Your task to perform on an android device: Open Yahoo.com Image 0: 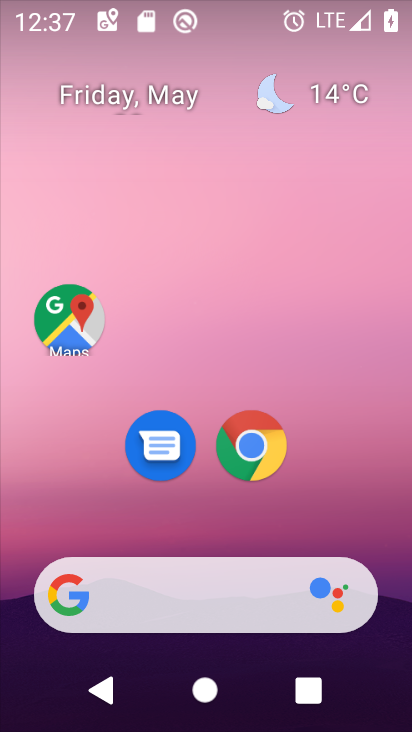
Step 0: click (251, 449)
Your task to perform on an android device: Open Yahoo.com Image 1: 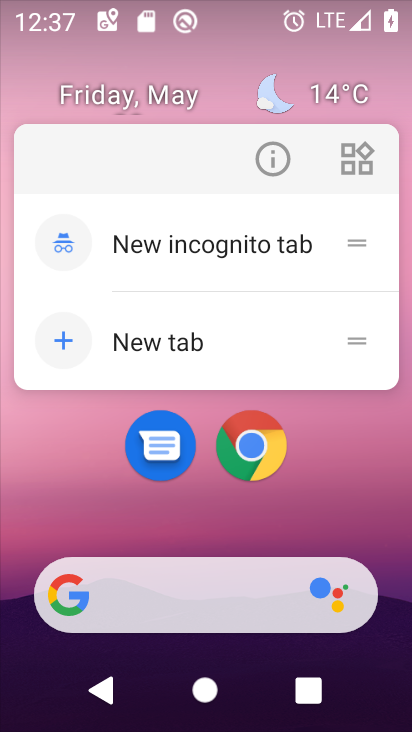
Step 1: click (256, 430)
Your task to perform on an android device: Open Yahoo.com Image 2: 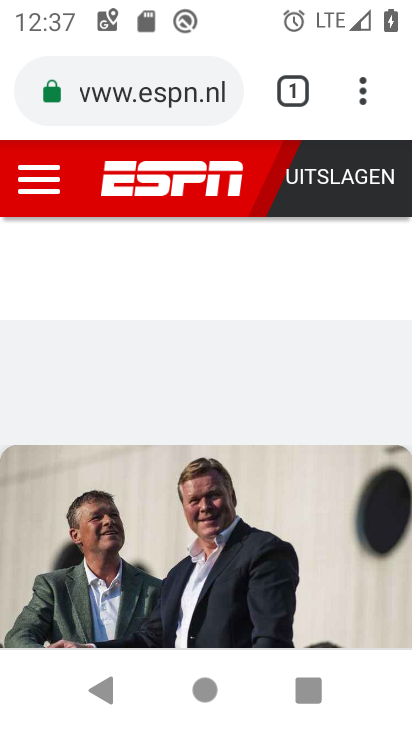
Step 2: click (295, 76)
Your task to perform on an android device: Open Yahoo.com Image 3: 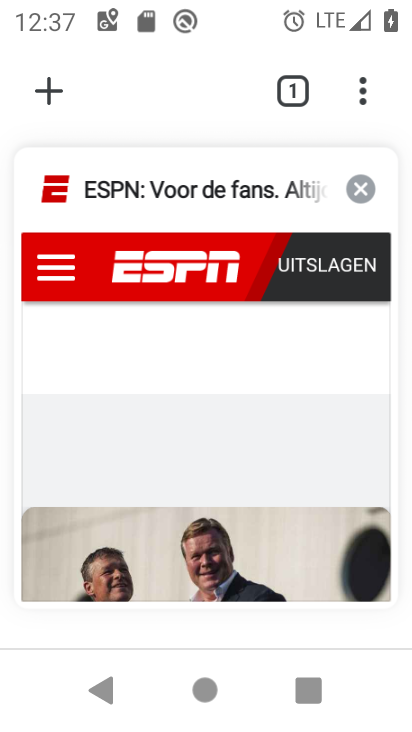
Step 3: click (360, 192)
Your task to perform on an android device: Open Yahoo.com Image 4: 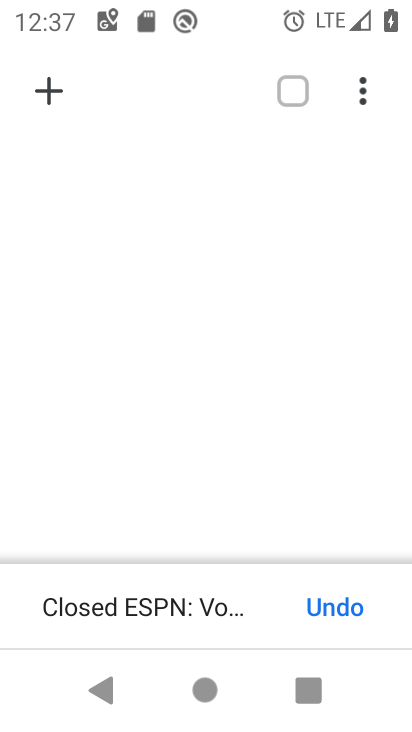
Step 4: click (46, 88)
Your task to perform on an android device: Open Yahoo.com Image 5: 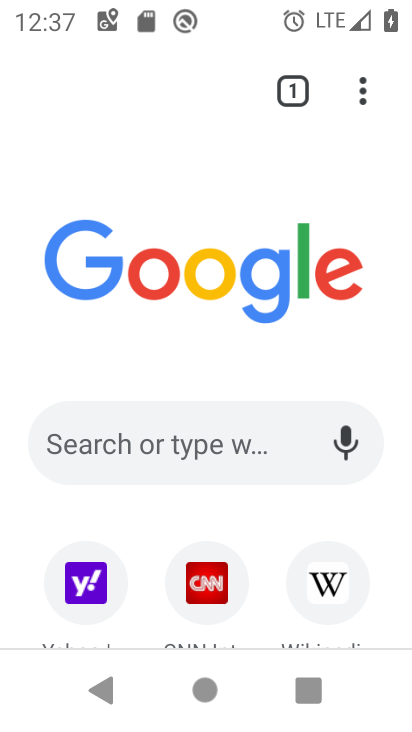
Step 5: drag from (56, 441) to (229, 133)
Your task to perform on an android device: Open Yahoo.com Image 6: 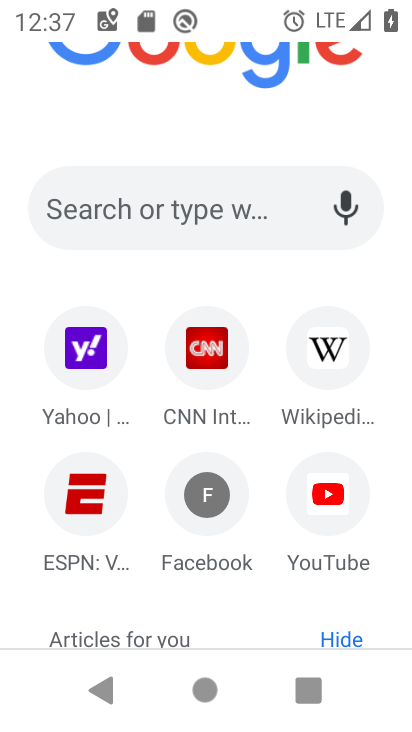
Step 6: click (84, 351)
Your task to perform on an android device: Open Yahoo.com Image 7: 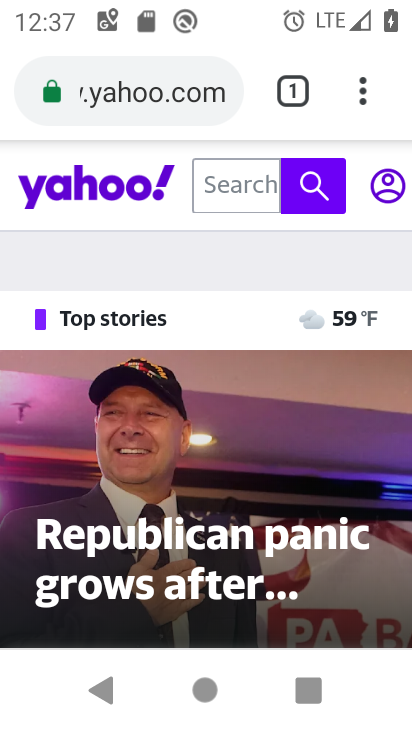
Step 7: task complete